Your task to perform on an android device: turn on javascript in the chrome app Image 0: 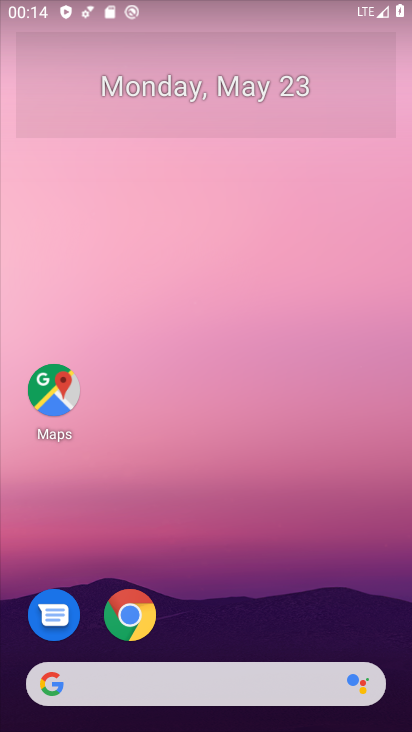
Step 0: click (126, 621)
Your task to perform on an android device: turn on javascript in the chrome app Image 1: 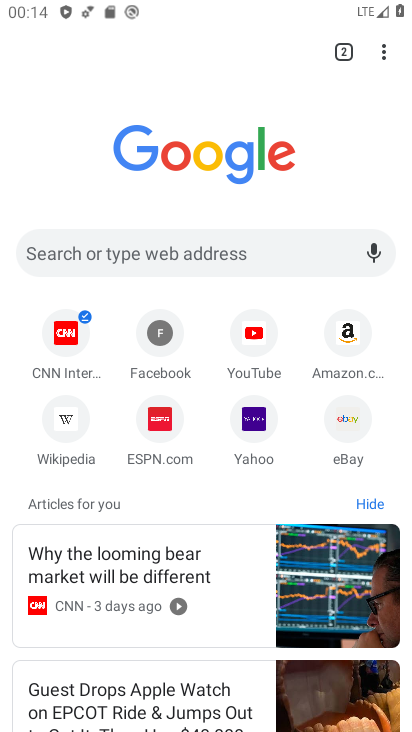
Step 1: drag from (381, 54) to (223, 442)
Your task to perform on an android device: turn on javascript in the chrome app Image 2: 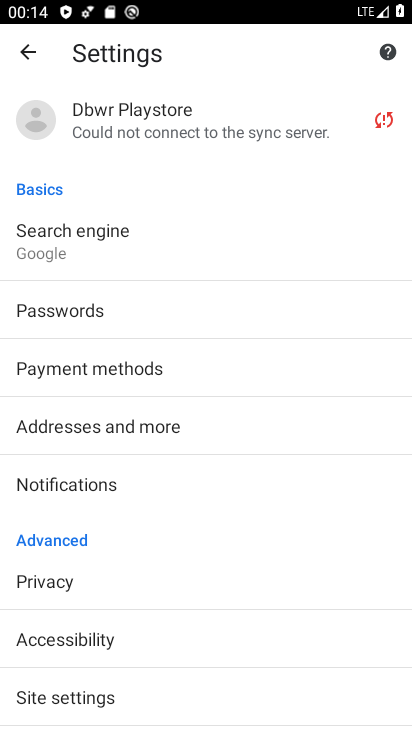
Step 2: click (93, 696)
Your task to perform on an android device: turn on javascript in the chrome app Image 3: 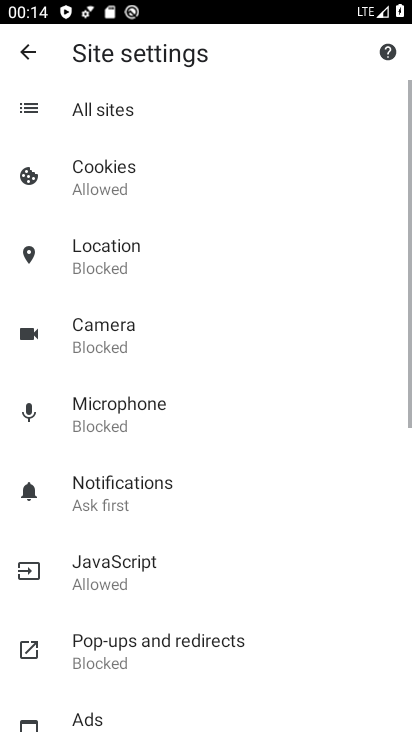
Step 3: click (105, 570)
Your task to perform on an android device: turn on javascript in the chrome app Image 4: 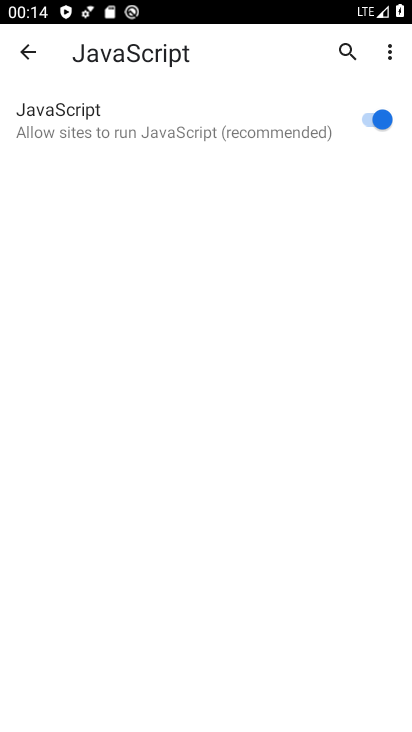
Step 4: task complete